Your task to perform on an android device: delete a single message in the gmail app Image 0: 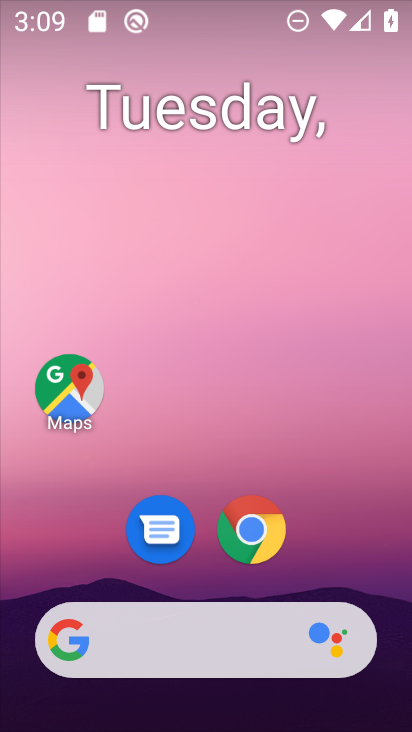
Step 0: drag from (346, 613) to (334, 268)
Your task to perform on an android device: delete a single message in the gmail app Image 1: 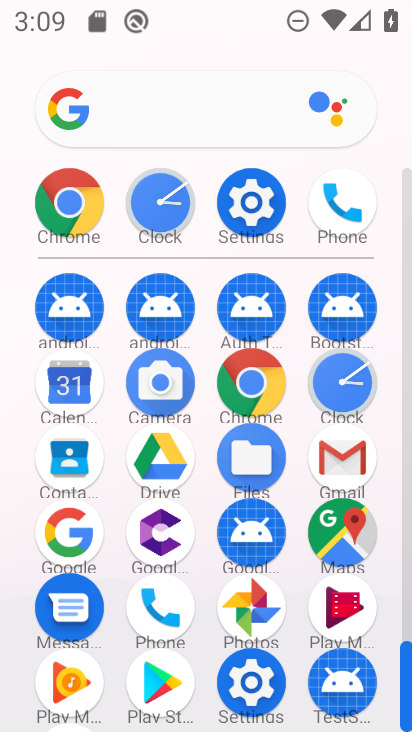
Step 1: click (339, 459)
Your task to perform on an android device: delete a single message in the gmail app Image 2: 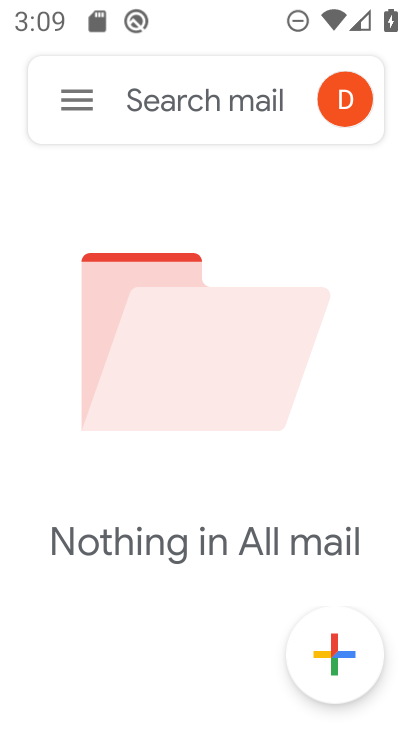
Step 2: click (91, 102)
Your task to perform on an android device: delete a single message in the gmail app Image 3: 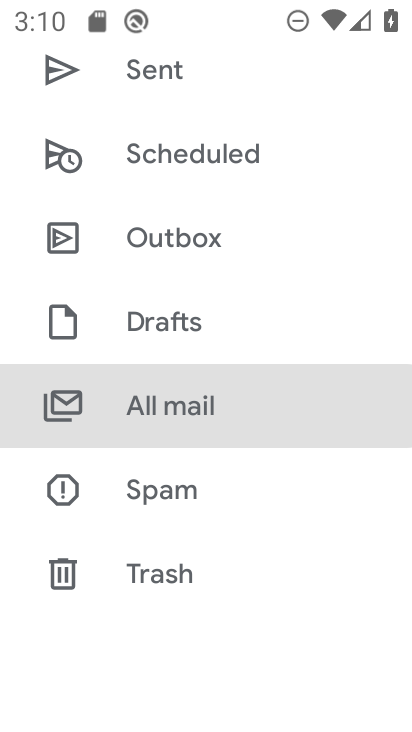
Step 3: task complete